Your task to perform on an android device: Open eBay Image 0: 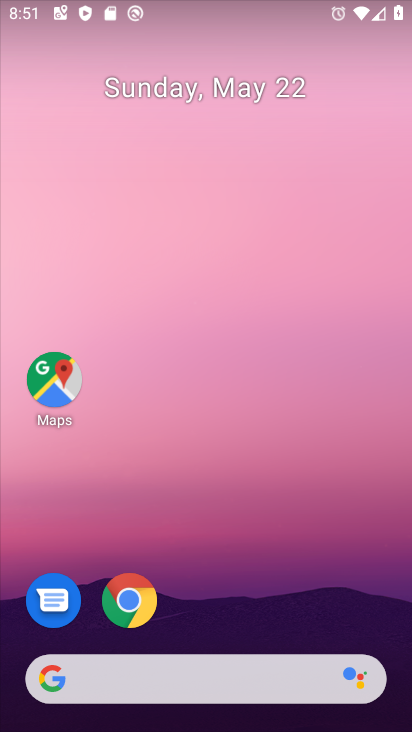
Step 0: drag from (271, 633) to (314, 97)
Your task to perform on an android device: Open eBay Image 1: 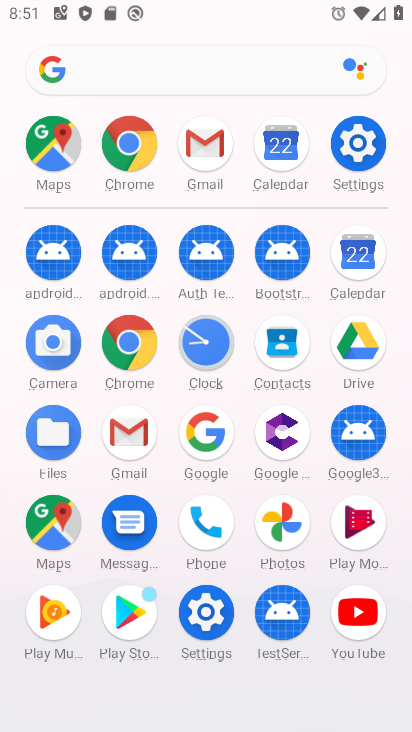
Step 1: click (122, 158)
Your task to perform on an android device: Open eBay Image 2: 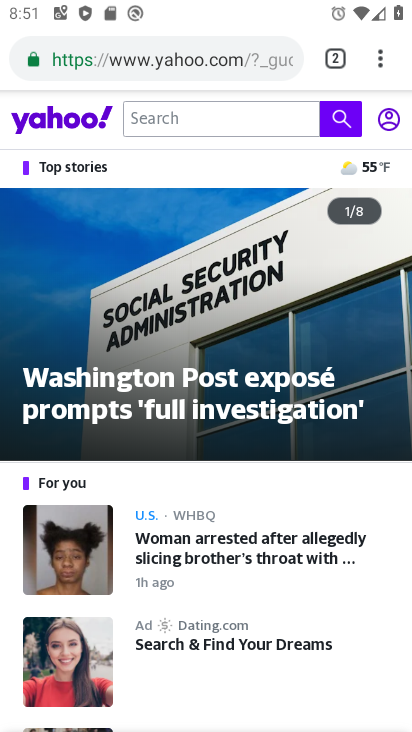
Step 2: drag from (335, 59) to (338, 115)
Your task to perform on an android device: Open eBay Image 3: 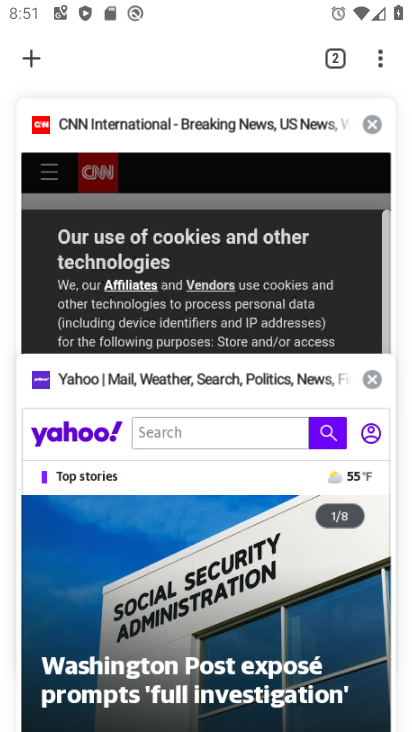
Step 3: click (37, 56)
Your task to perform on an android device: Open eBay Image 4: 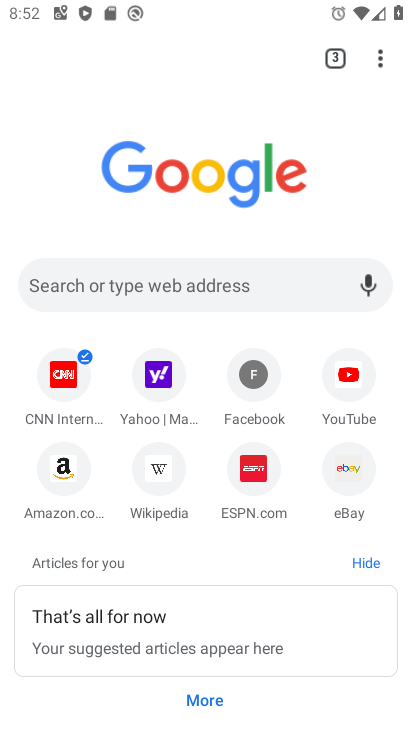
Step 4: click (351, 485)
Your task to perform on an android device: Open eBay Image 5: 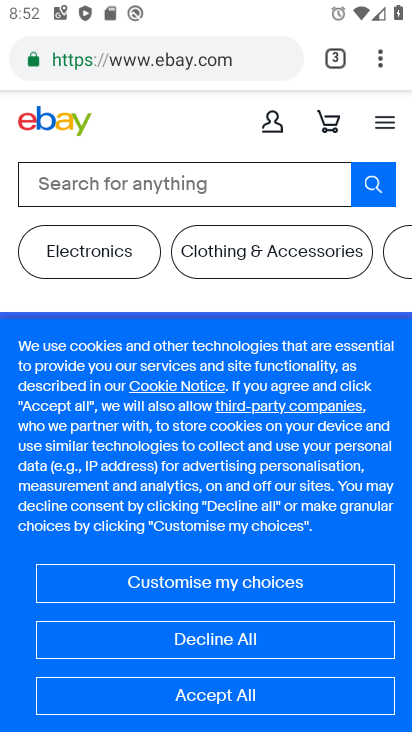
Step 5: task complete